Your task to perform on an android device: Search for seafood restaurants on Google Maps Image 0: 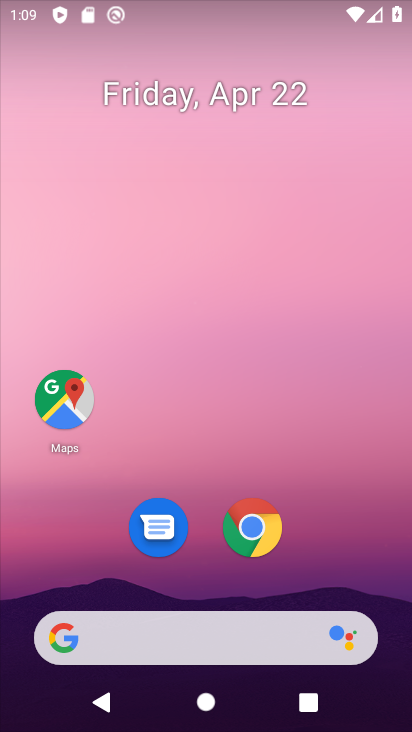
Step 0: click (54, 412)
Your task to perform on an android device: Search for seafood restaurants on Google Maps Image 1: 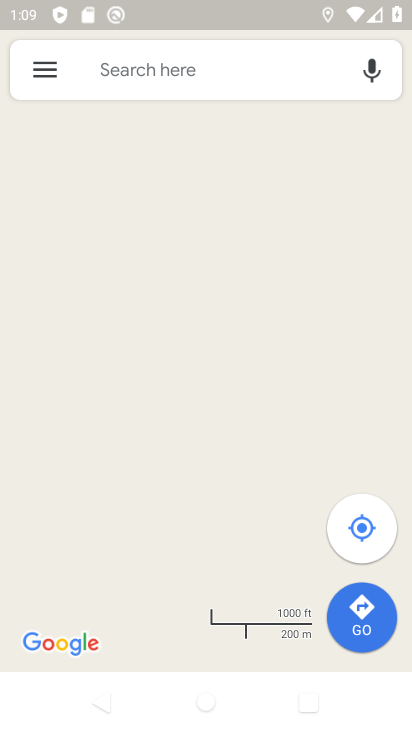
Step 1: click (253, 77)
Your task to perform on an android device: Search for seafood restaurants on Google Maps Image 2: 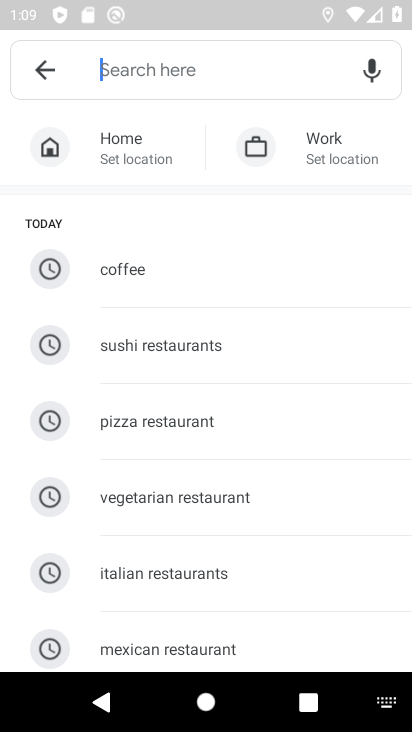
Step 2: type "seafood restaurants"
Your task to perform on an android device: Search for seafood restaurants on Google Maps Image 3: 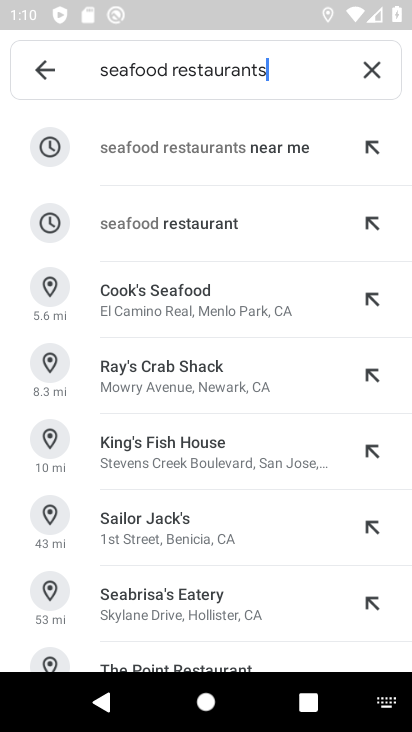
Step 3: click (147, 224)
Your task to perform on an android device: Search for seafood restaurants on Google Maps Image 4: 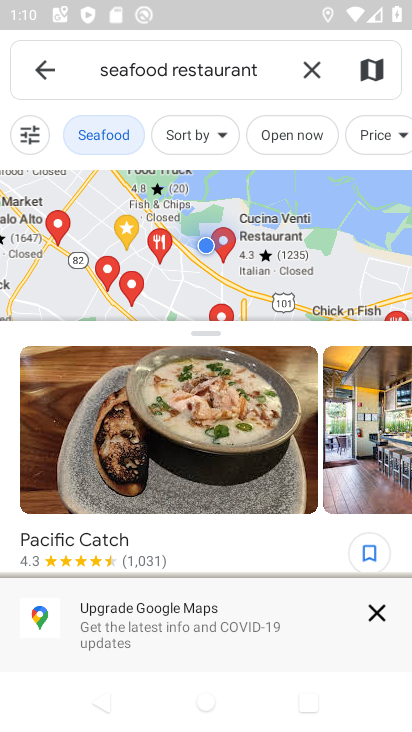
Step 4: task complete